Your task to perform on an android device: Go to settings Image 0: 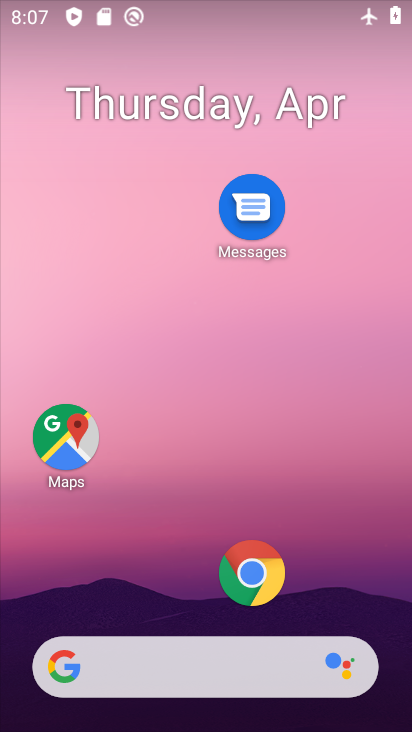
Step 0: drag from (191, 604) to (183, 159)
Your task to perform on an android device: Go to settings Image 1: 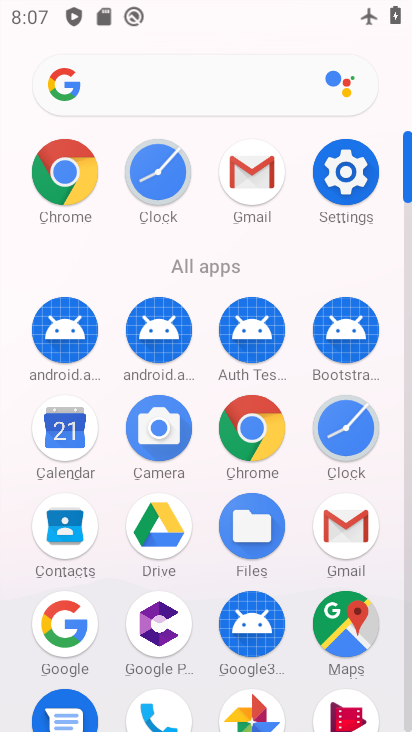
Step 1: click (341, 165)
Your task to perform on an android device: Go to settings Image 2: 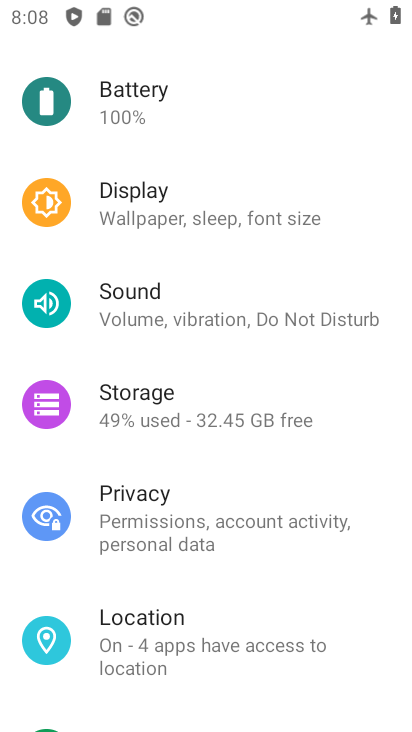
Step 2: task complete